Your task to perform on an android device: Open Google Image 0: 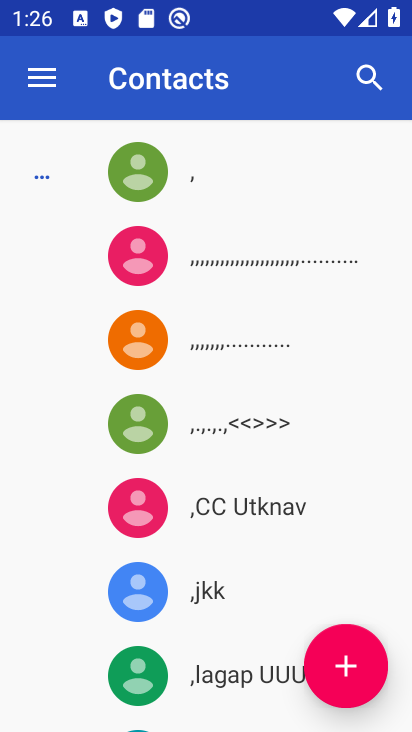
Step 0: press home button
Your task to perform on an android device: Open Google Image 1: 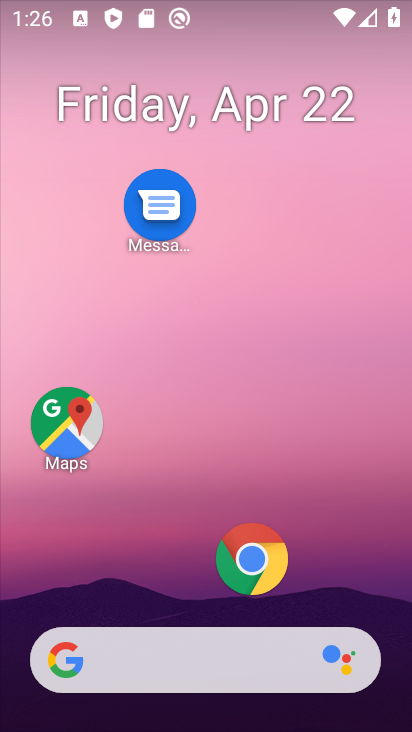
Step 1: drag from (182, 598) to (252, 371)
Your task to perform on an android device: Open Google Image 2: 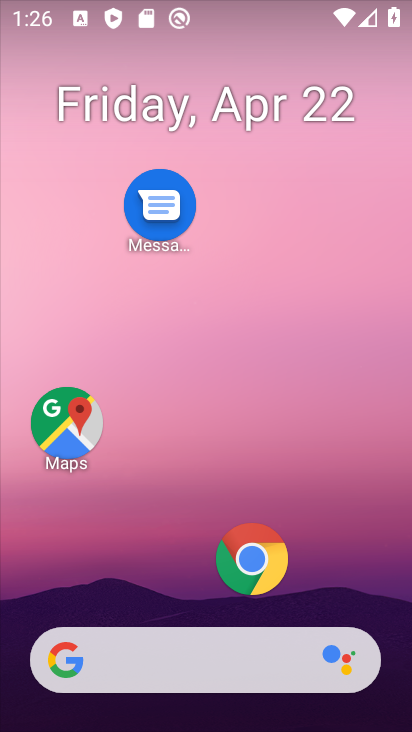
Step 2: drag from (175, 620) to (271, 311)
Your task to perform on an android device: Open Google Image 3: 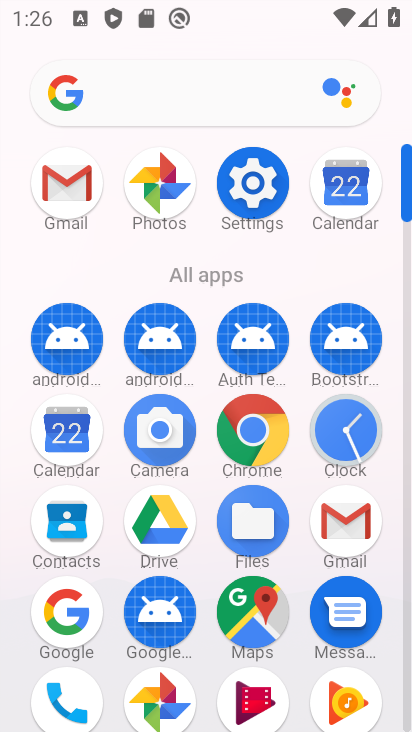
Step 3: click (57, 623)
Your task to perform on an android device: Open Google Image 4: 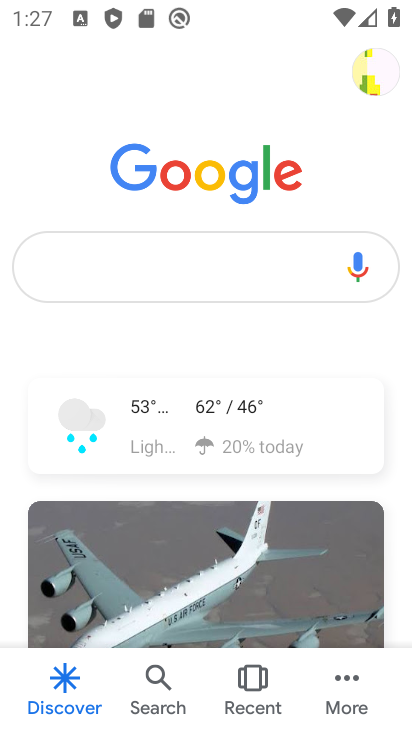
Step 4: task complete